Your task to perform on an android device: Open a new Chrome private tab Image 0: 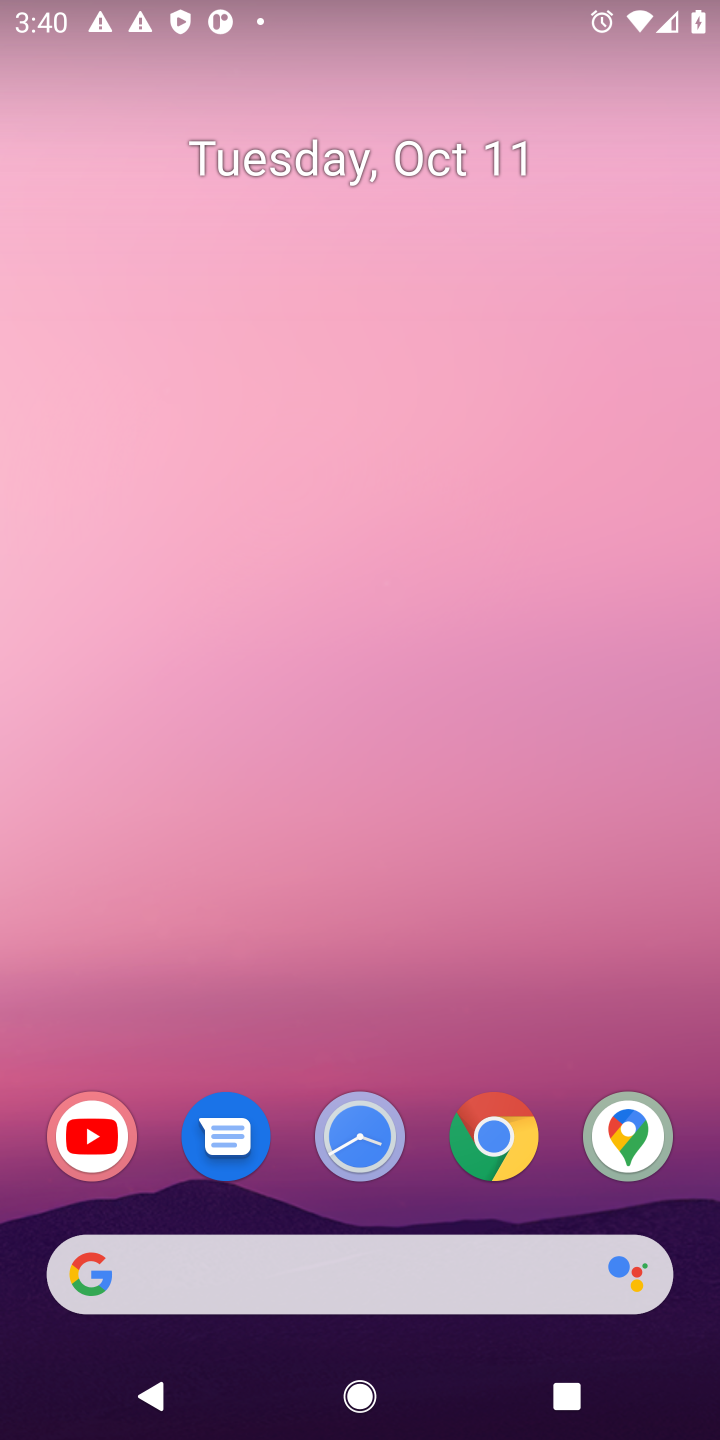
Step 0: click (496, 1138)
Your task to perform on an android device: Open a new Chrome private tab Image 1: 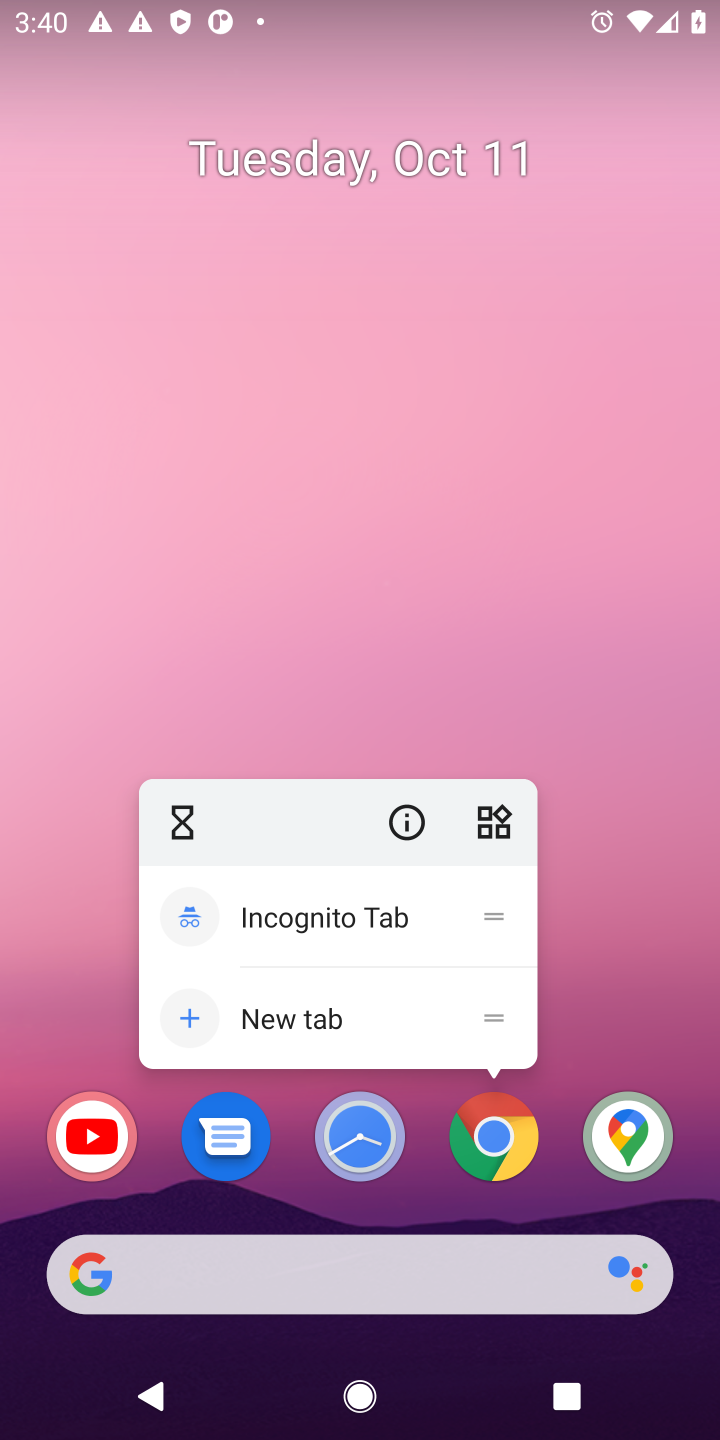
Step 1: click (496, 1138)
Your task to perform on an android device: Open a new Chrome private tab Image 2: 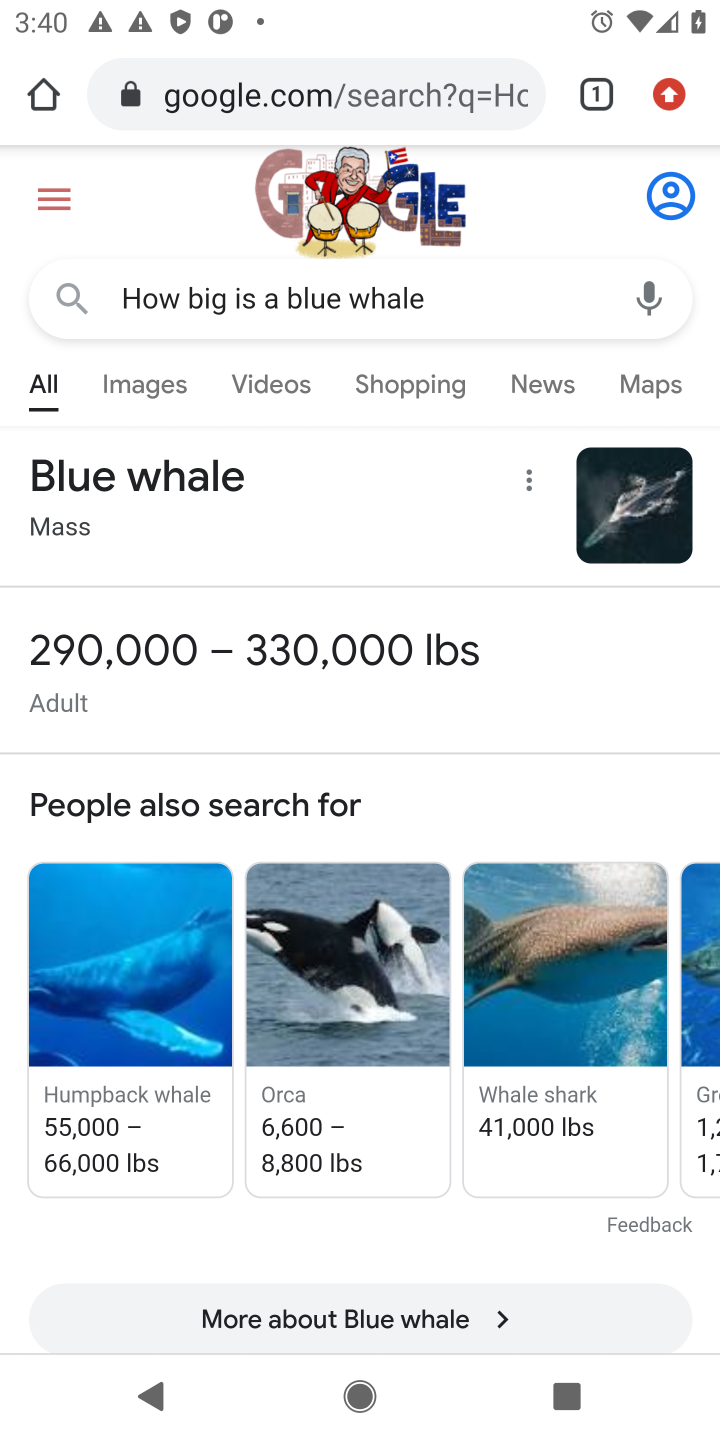
Step 2: task complete